Your task to perform on an android device: Open settings on Google Maps Image 0: 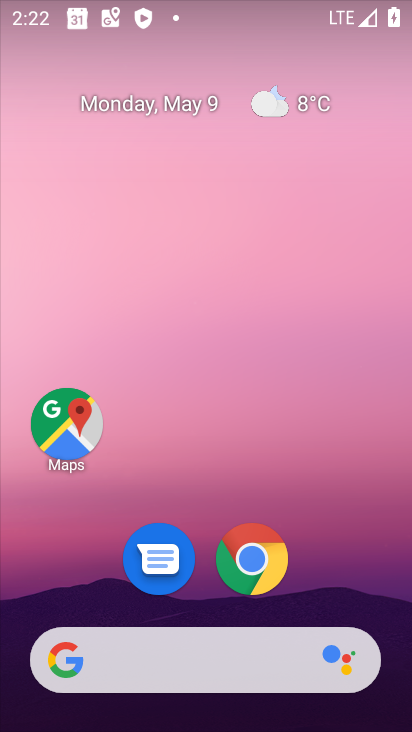
Step 0: click (49, 439)
Your task to perform on an android device: Open settings on Google Maps Image 1: 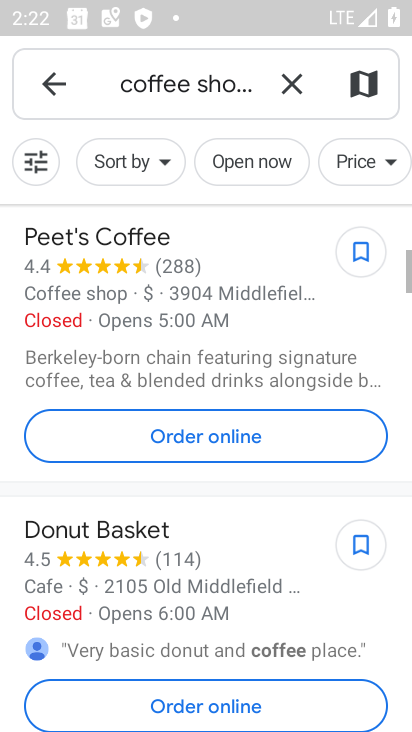
Step 1: click (296, 78)
Your task to perform on an android device: Open settings on Google Maps Image 2: 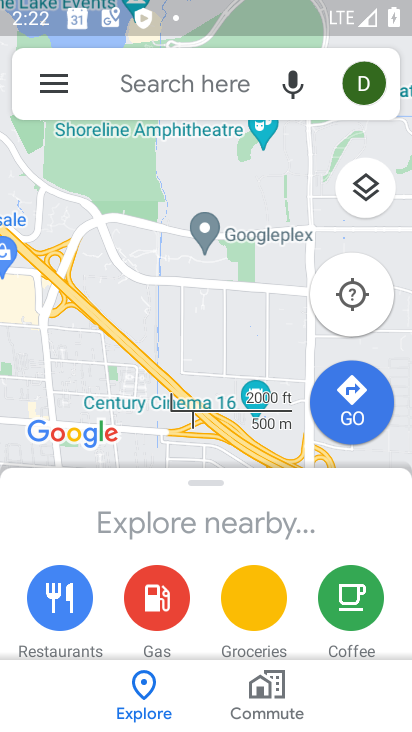
Step 2: click (48, 91)
Your task to perform on an android device: Open settings on Google Maps Image 3: 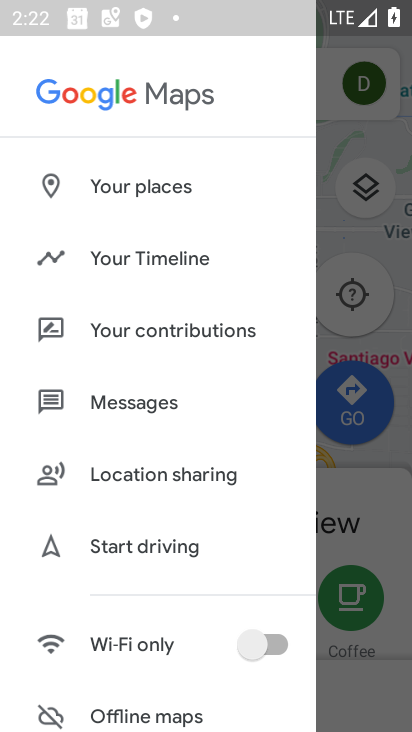
Step 3: drag from (141, 625) to (112, 259)
Your task to perform on an android device: Open settings on Google Maps Image 4: 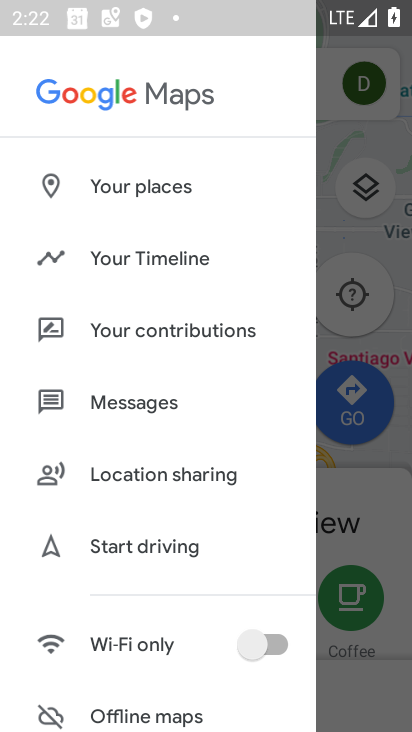
Step 4: drag from (165, 601) to (160, 167)
Your task to perform on an android device: Open settings on Google Maps Image 5: 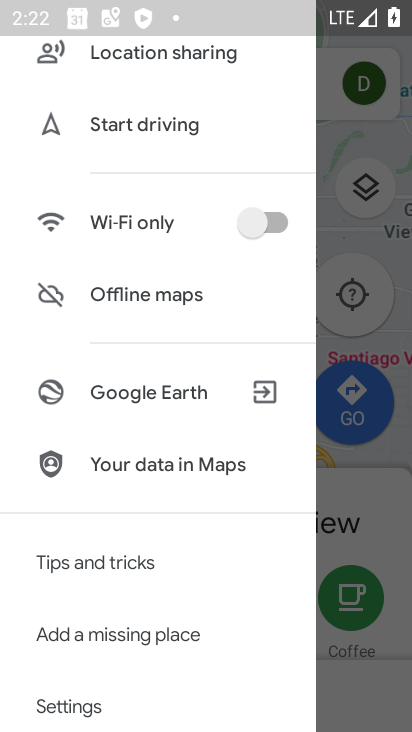
Step 5: click (66, 702)
Your task to perform on an android device: Open settings on Google Maps Image 6: 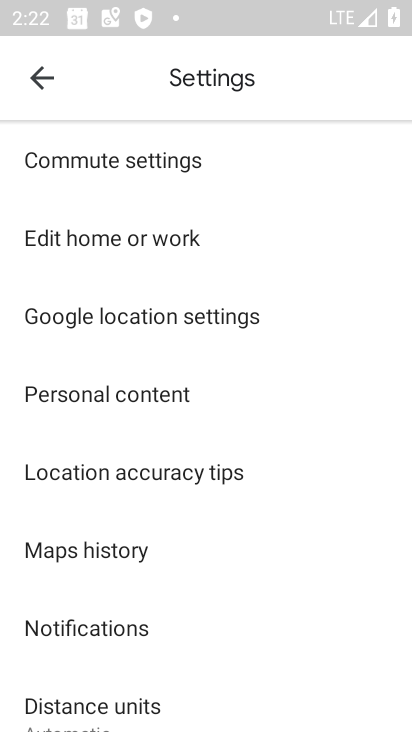
Step 6: task complete